Your task to perform on an android device: open app "Pinterest" (install if not already installed) Image 0: 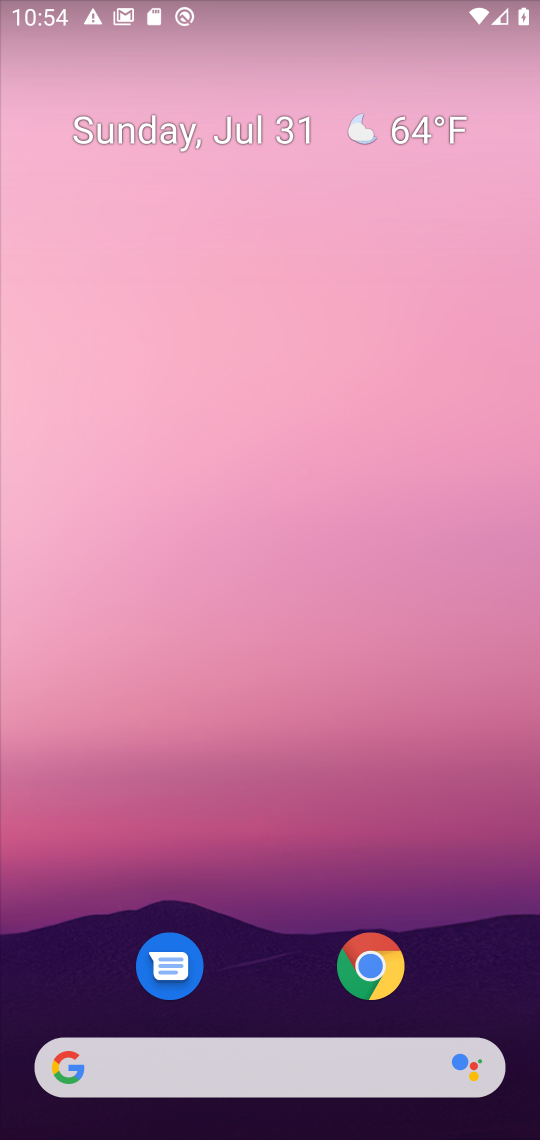
Step 0: drag from (255, 942) to (198, 31)
Your task to perform on an android device: open app "Pinterest" (install if not already installed) Image 1: 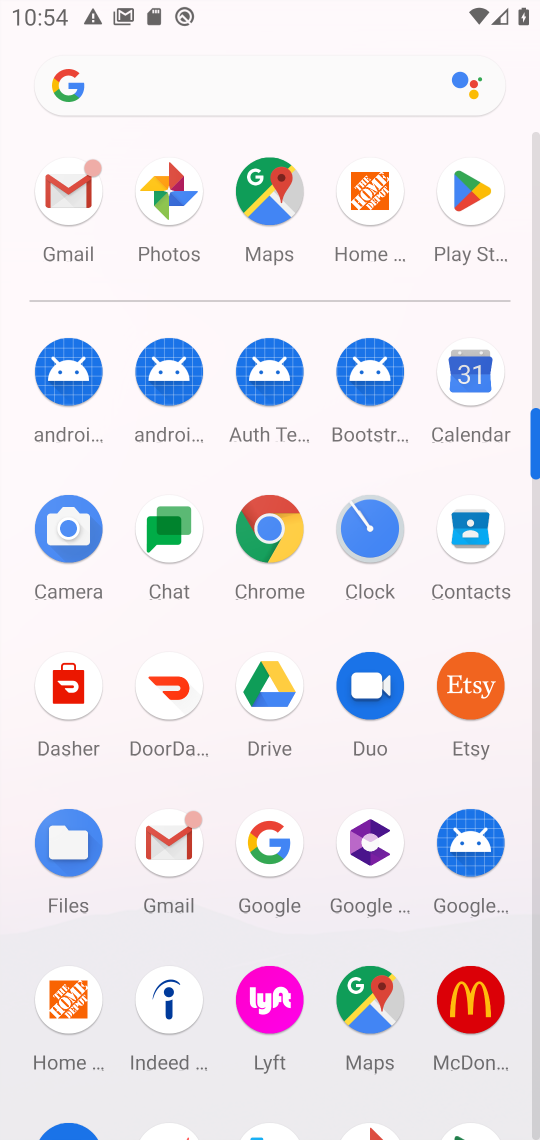
Step 1: click (478, 224)
Your task to perform on an android device: open app "Pinterest" (install if not already installed) Image 2: 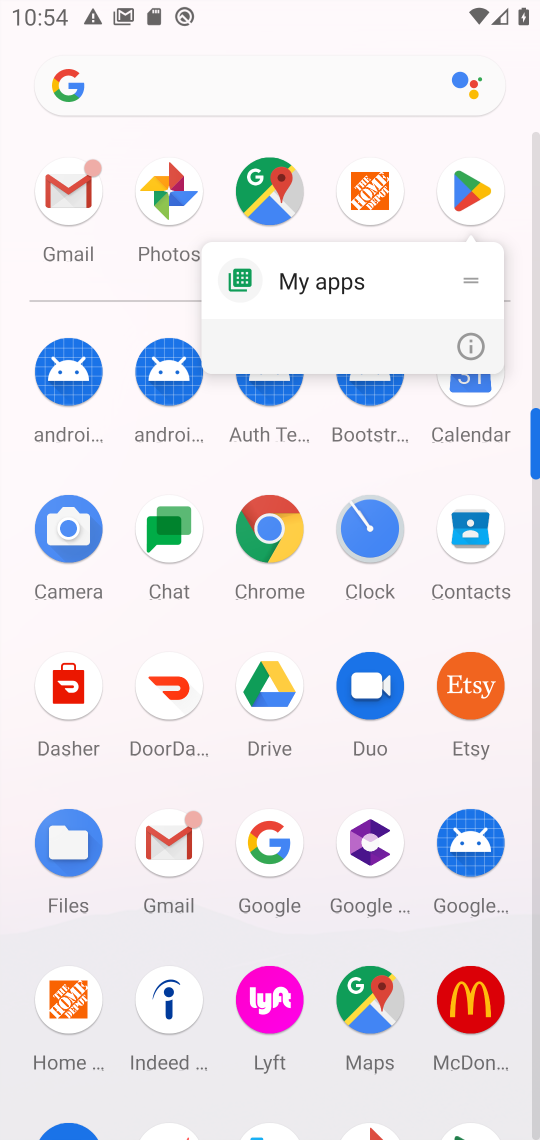
Step 2: click (483, 185)
Your task to perform on an android device: open app "Pinterest" (install if not already installed) Image 3: 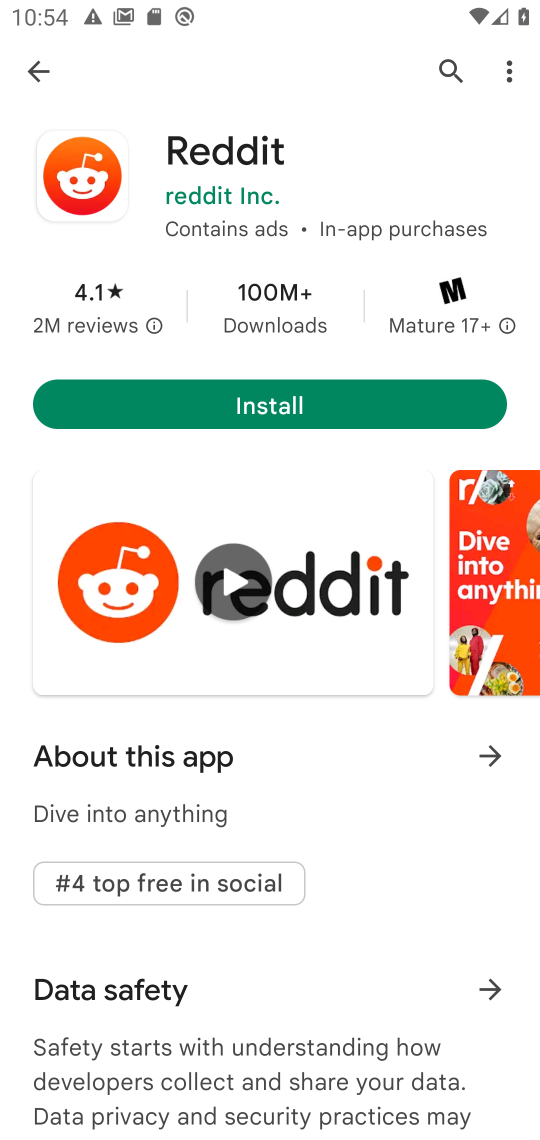
Step 3: click (34, 63)
Your task to perform on an android device: open app "Pinterest" (install if not already installed) Image 4: 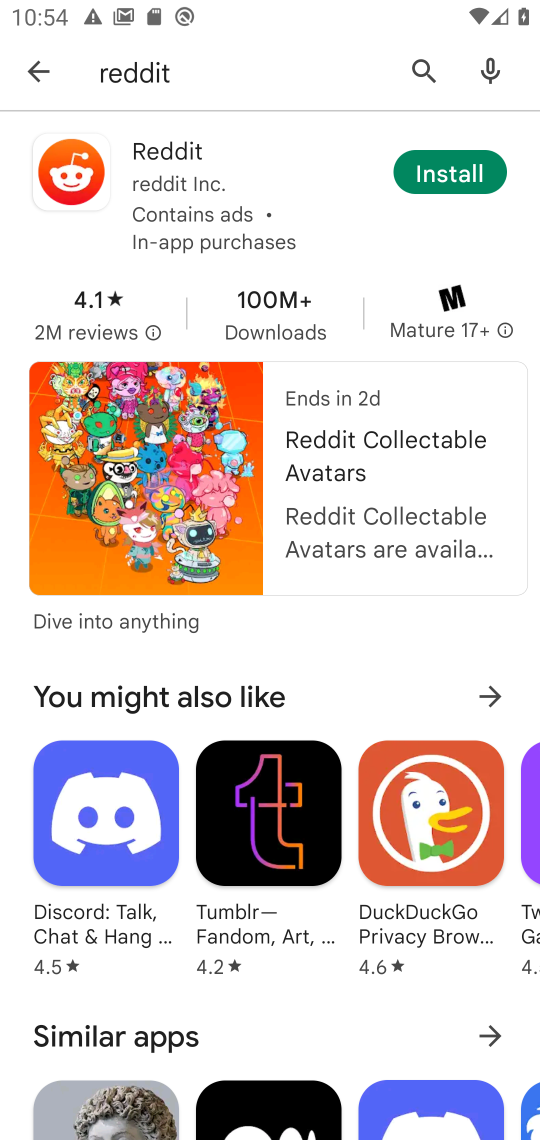
Step 4: click (182, 83)
Your task to perform on an android device: open app "Pinterest" (install if not already installed) Image 5: 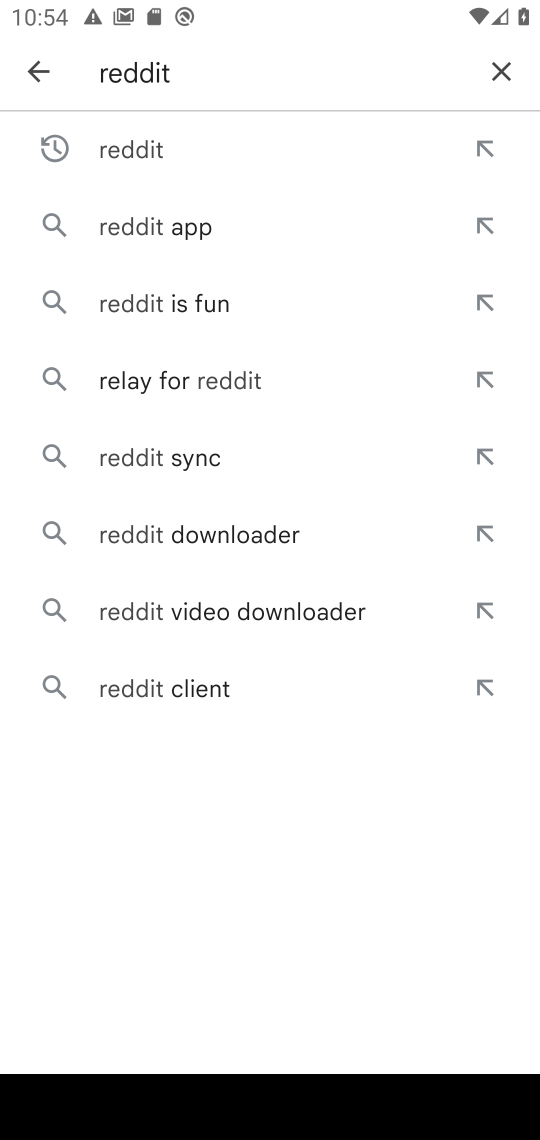
Step 5: click (513, 72)
Your task to perform on an android device: open app "Pinterest" (install if not already installed) Image 6: 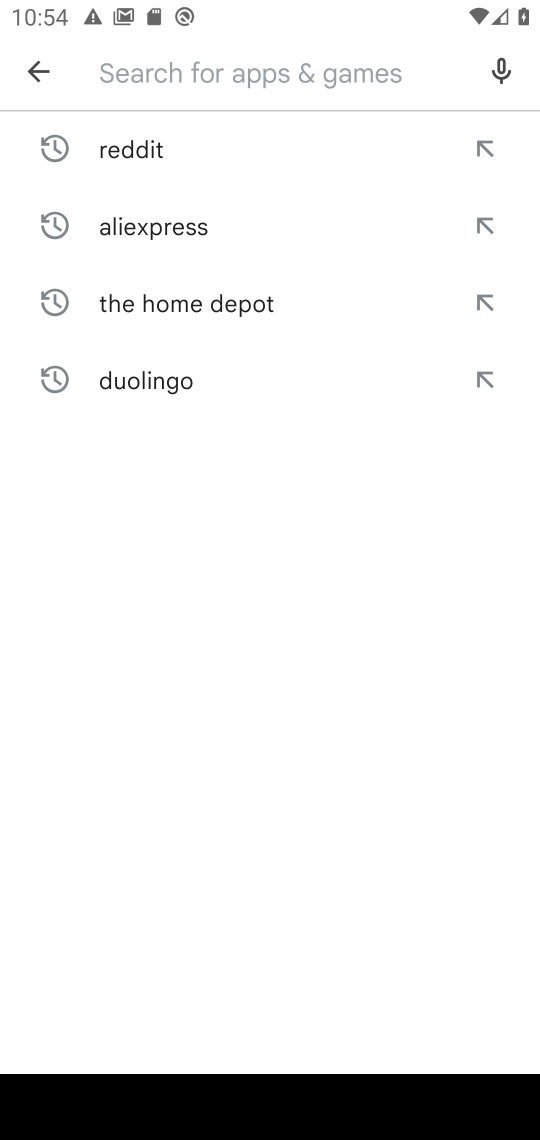
Step 6: type "pinterest"
Your task to perform on an android device: open app "Pinterest" (install if not already installed) Image 7: 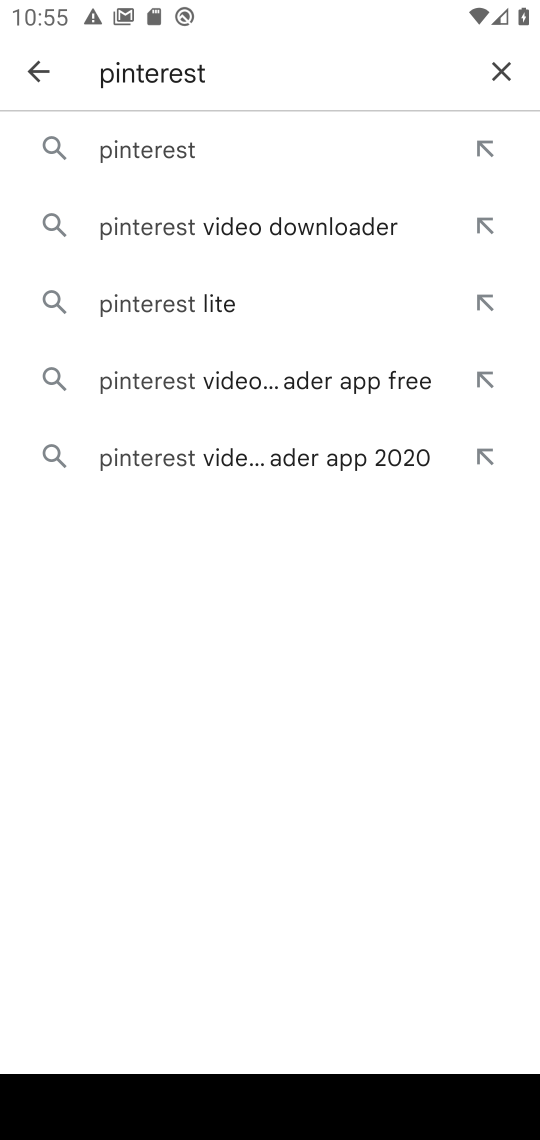
Step 7: click (186, 137)
Your task to perform on an android device: open app "Pinterest" (install if not already installed) Image 8: 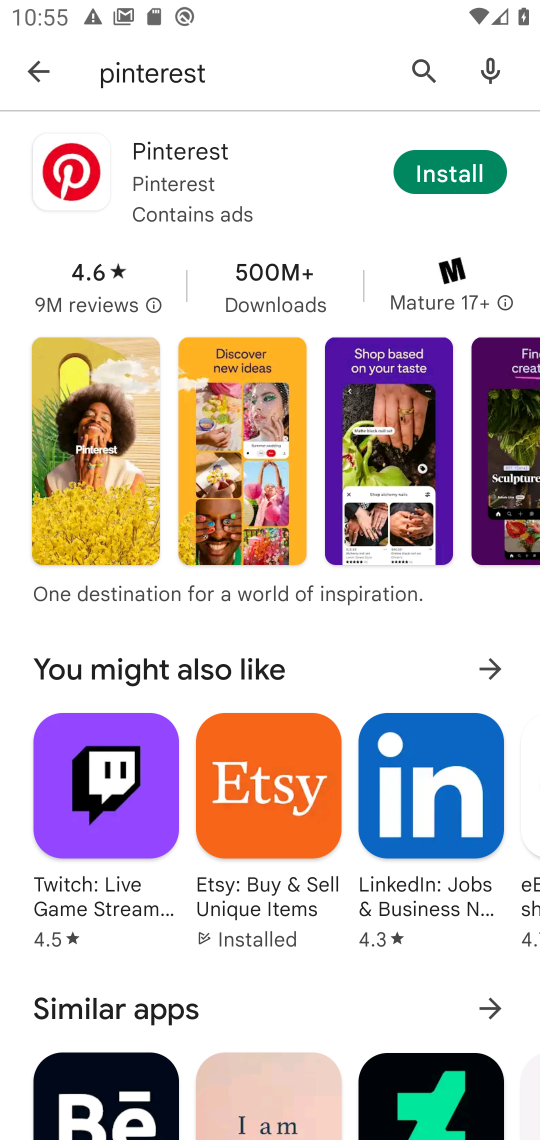
Step 8: click (465, 172)
Your task to perform on an android device: open app "Pinterest" (install if not already installed) Image 9: 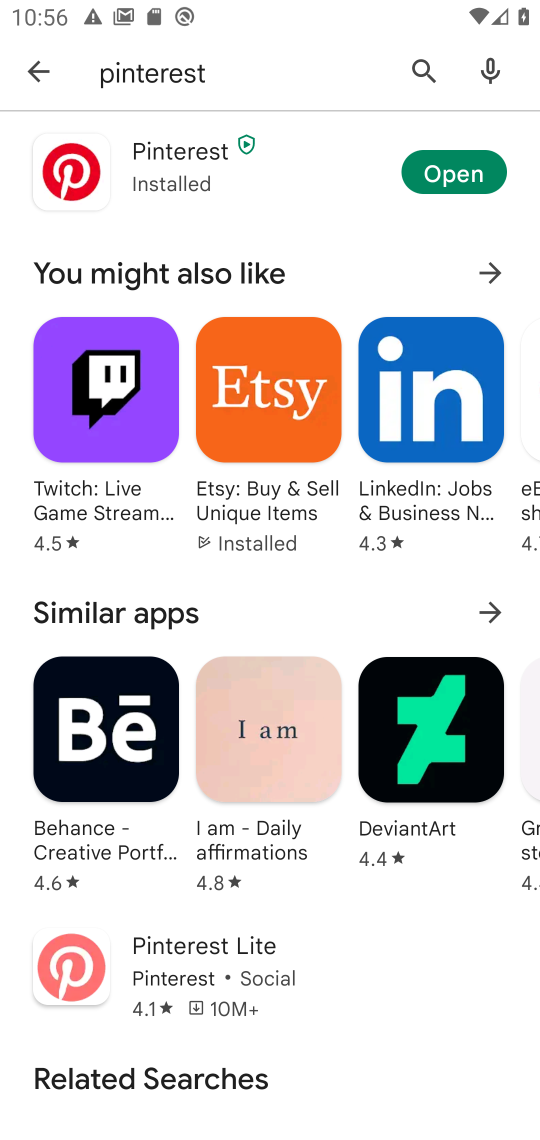
Step 9: click (463, 173)
Your task to perform on an android device: open app "Pinterest" (install if not already installed) Image 10: 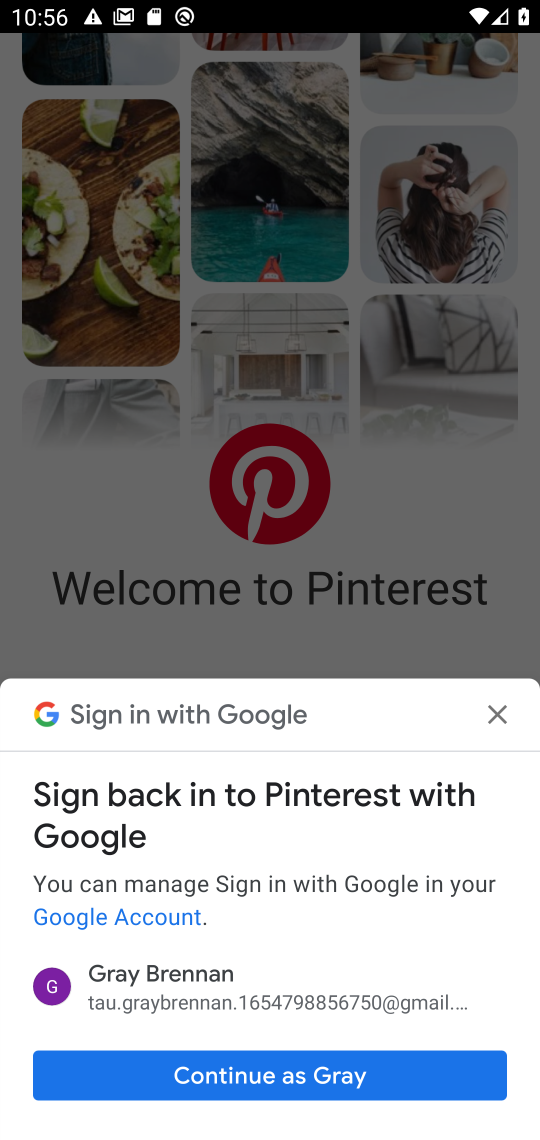
Step 10: click (349, 1065)
Your task to perform on an android device: open app "Pinterest" (install if not already installed) Image 11: 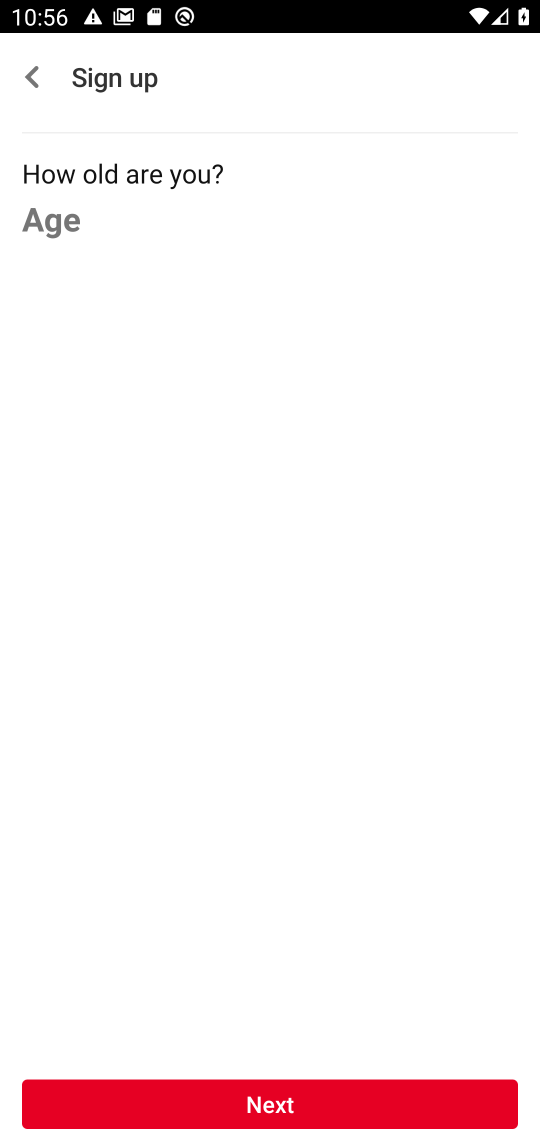
Step 11: task complete